Your task to perform on an android device: Go to ESPN.com Image 0: 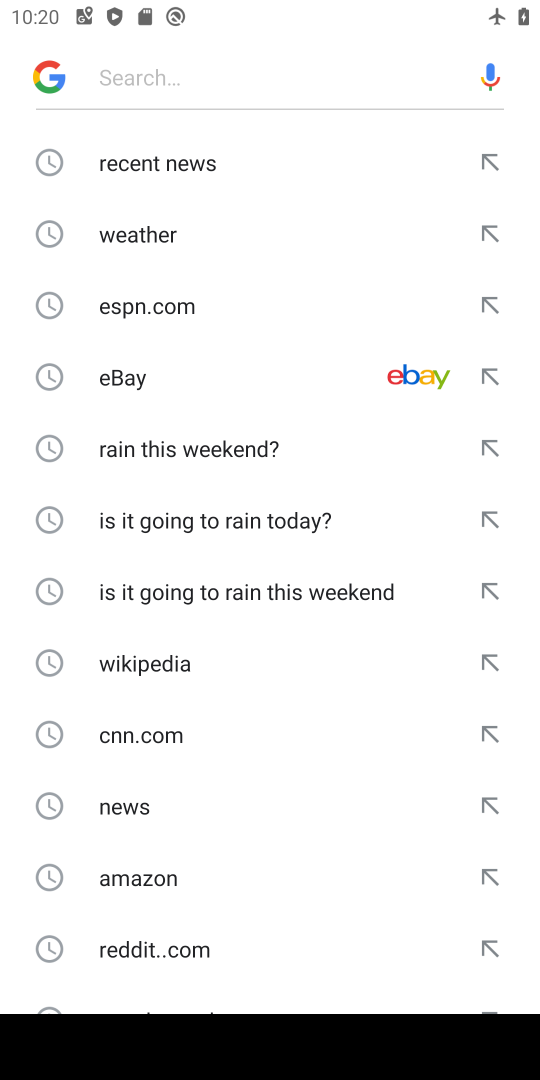
Step 0: click (73, 286)
Your task to perform on an android device: Go to ESPN.com Image 1: 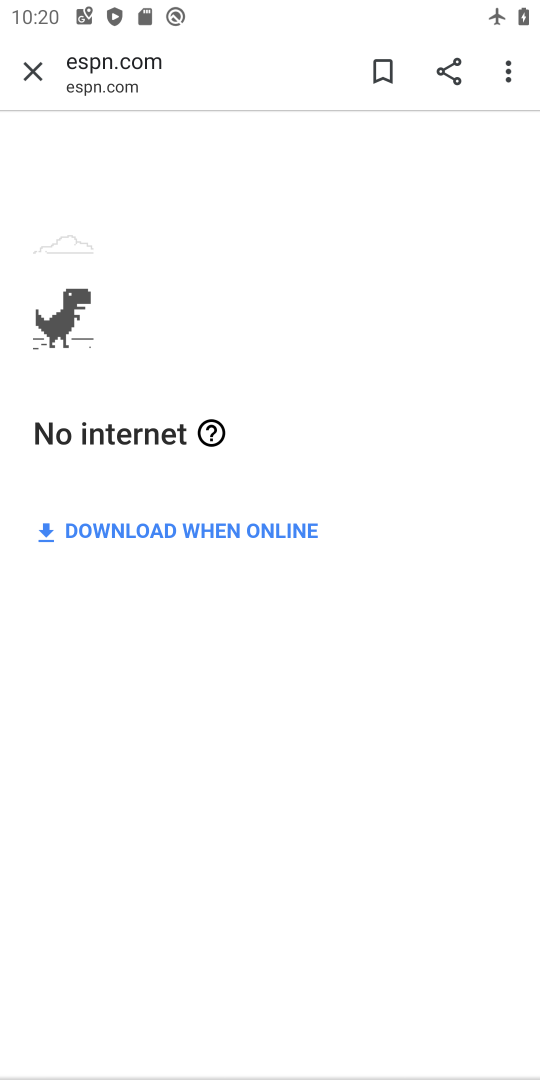
Step 1: task complete